Your task to perform on an android device: Open the web browser Image 0: 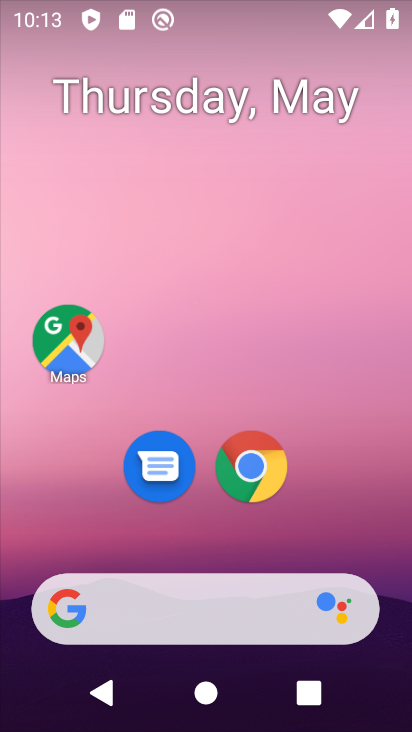
Step 0: click (245, 470)
Your task to perform on an android device: Open the web browser Image 1: 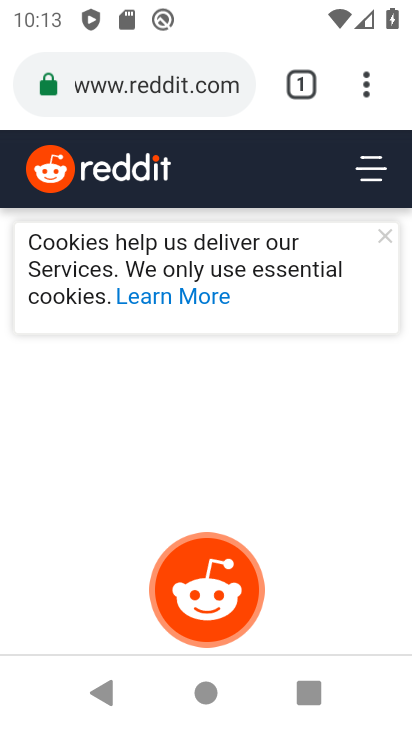
Step 1: task complete